Your task to perform on an android device: Turn on the flashlight Image 0: 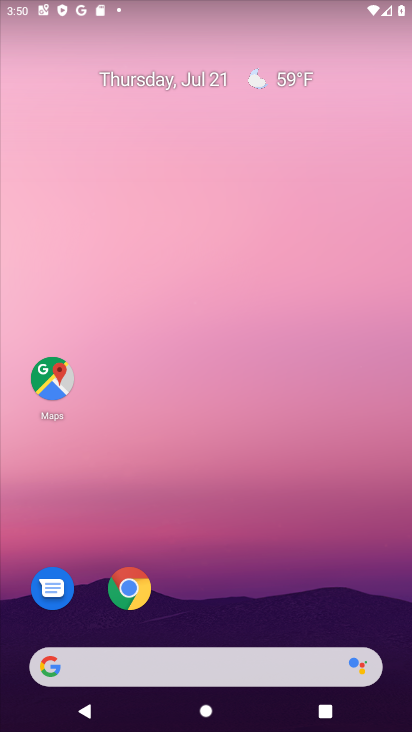
Step 0: drag from (222, 708) to (215, 241)
Your task to perform on an android device: Turn on the flashlight Image 1: 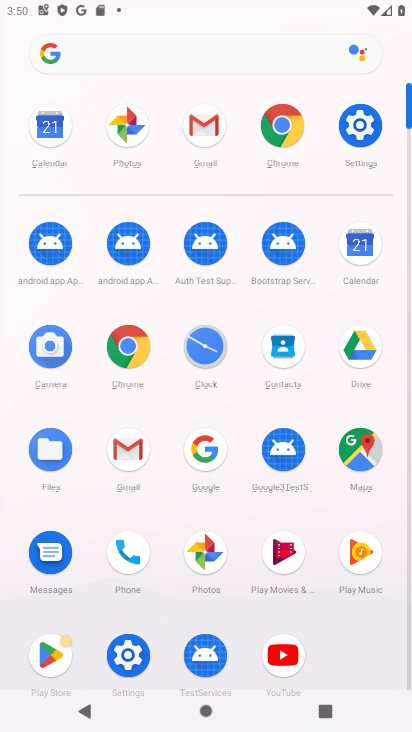
Step 1: click (365, 122)
Your task to perform on an android device: Turn on the flashlight Image 2: 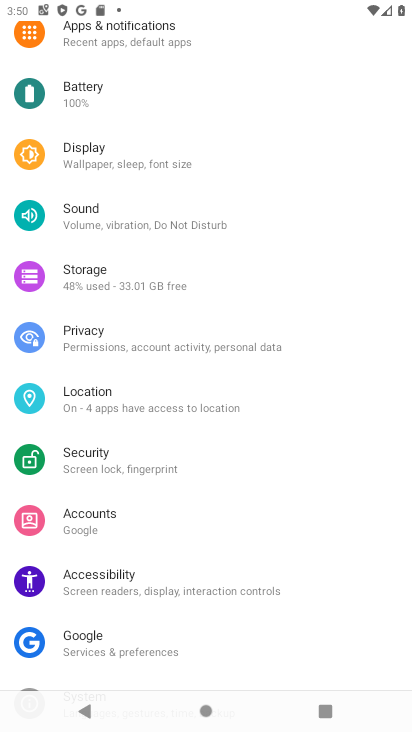
Step 2: task complete